Your task to perform on an android device: Open maps Image 0: 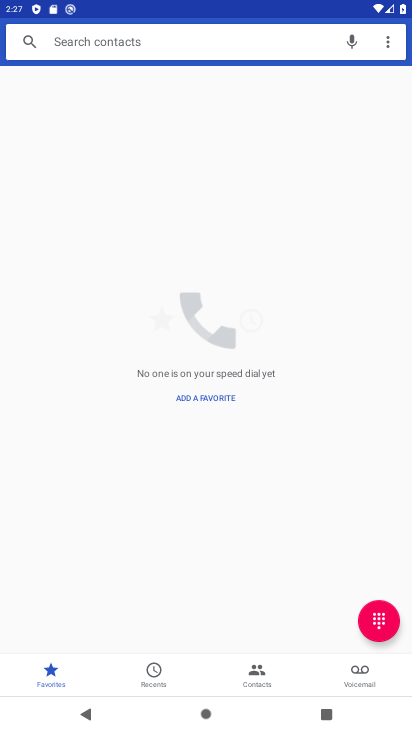
Step 0: press home button
Your task to perform on an android device: Open maps Image 1: 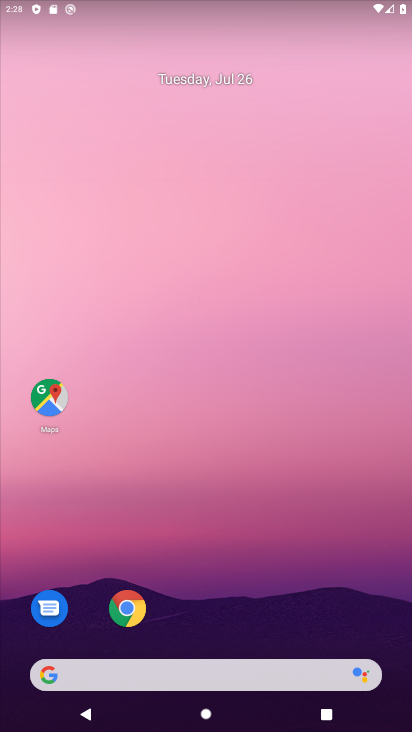
Step 1: click (45, 407)
Your task to perform on an android device: Open maps Image 2: 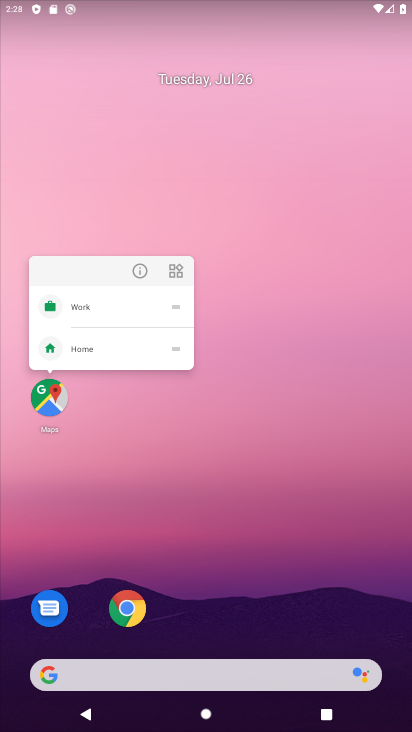
Step 2: click (46, 391)
Your task to perform on an android device: Open maps Image 3: 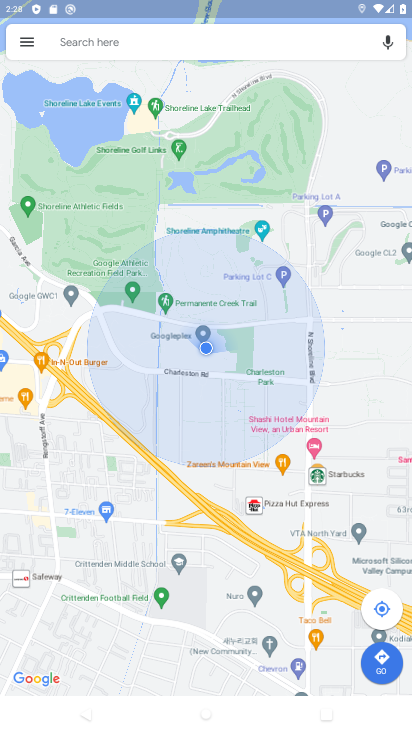
Step 3: task complete